Your task to perform on an android device: Open Yahoo.com Image 0: 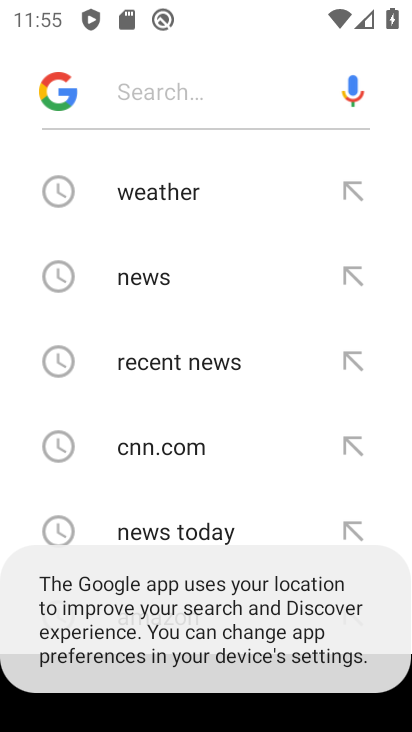
Step 0: press back button
Your task to perform on an android device: Open Yahoo.com Image 1: 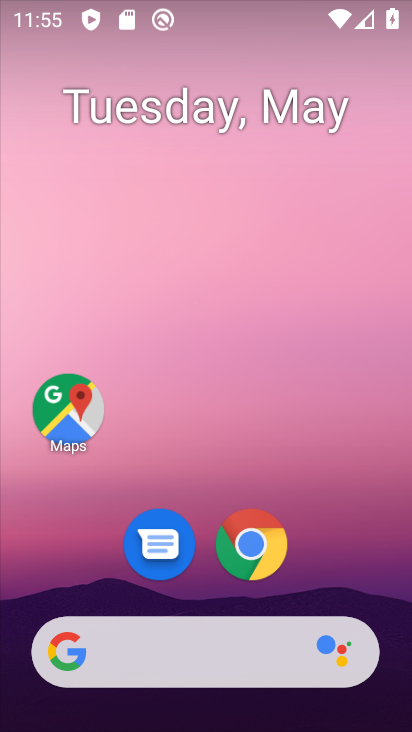
Step 1: click (268, 542)
Your task to perform on an android device: Open Yahoo.com Image 2: 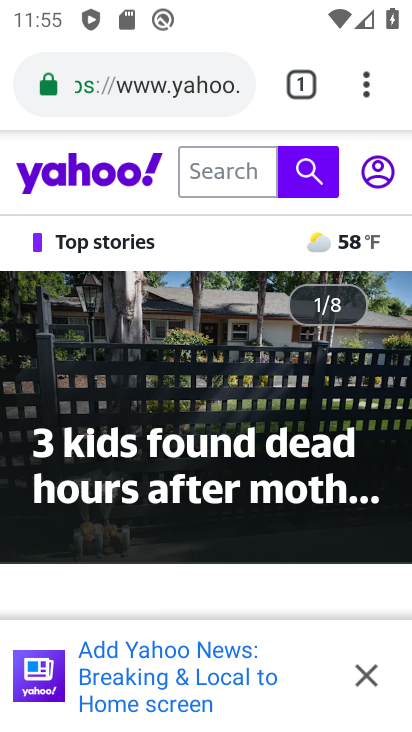
Step 2: task complete